Your task to perform on an android device: Do I have any events tomorrow? Image 0: 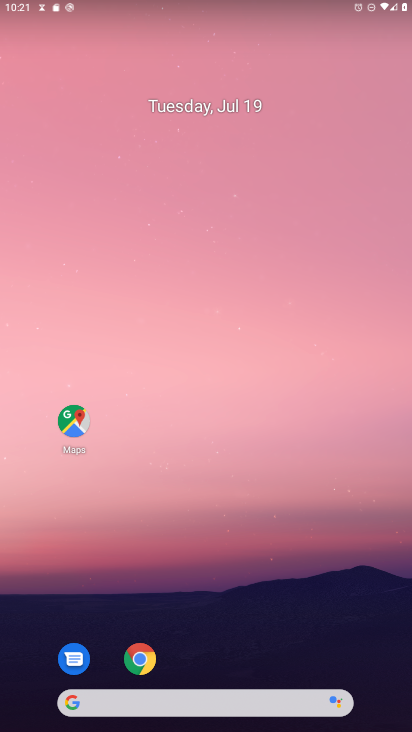
Step 0: drag from (203, 603) to (230, 152)
Your task to perform on an android device: Do I have any events tomorrow? Image 1: 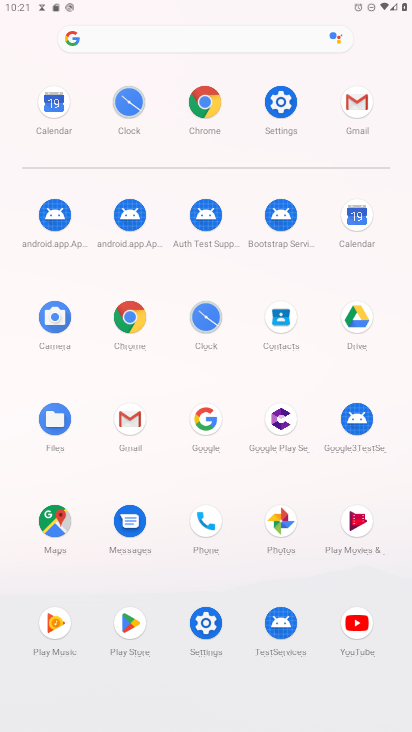
Step 1: click (345, 212)
Your task to perform on an android device: Do I have any events tomorrow? Image 2: 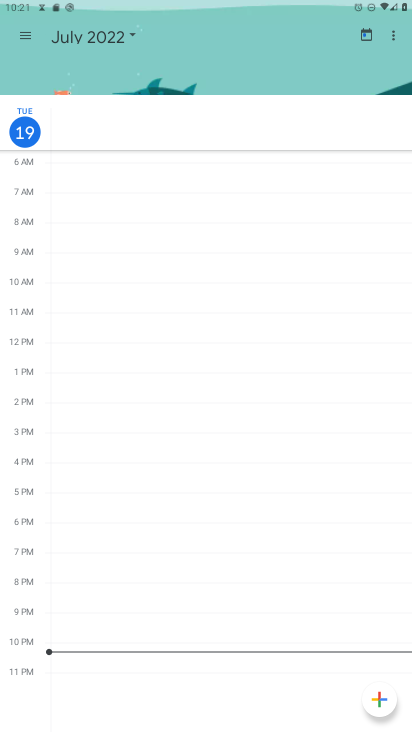
Step 2: click (31, 34)
Your task to perform on an android device: Do I have any events tomorrow? Image 3: 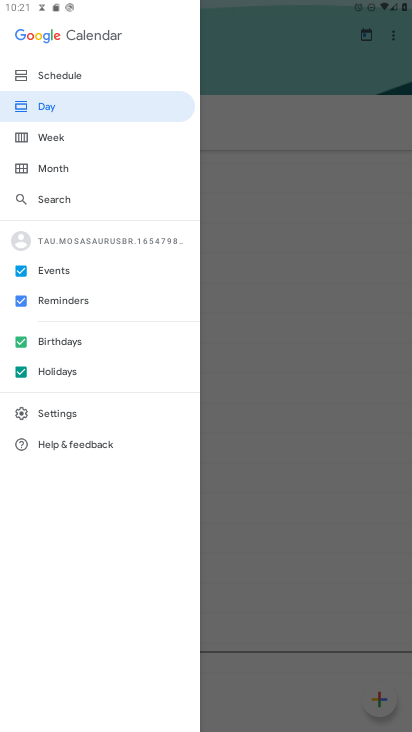
Step 3: click (47, 102)
Your task to perform on an android device: Do I have any events tomorrow? Image 4: 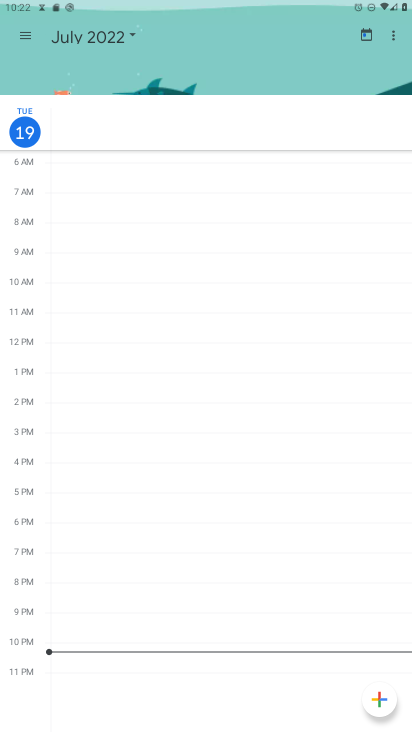
Step 4: click (33, 26)
Your task to perform on an android device: Do I have any events tomorrow? Image 5: 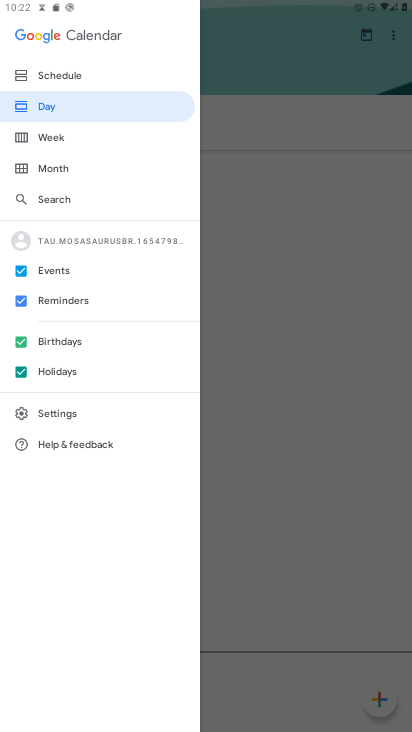
Step 5: click (55, 168)
Your task to perform on an android device: Do I have any events tomorrow? Image 6: 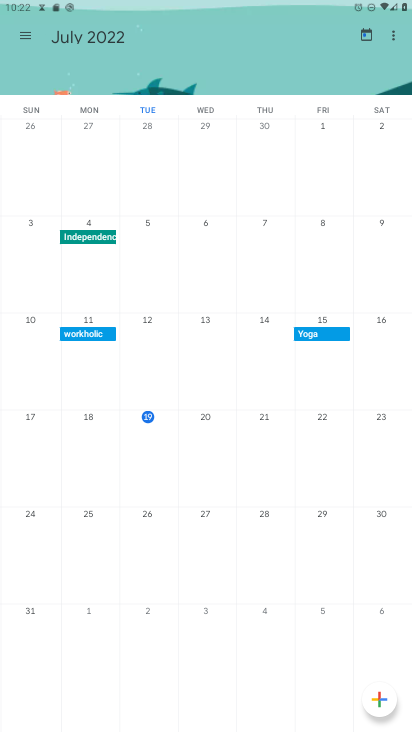
Step 6: click (255, 440)
Your task to perform on an android device: Do I have any events tomorrow? Image 7: 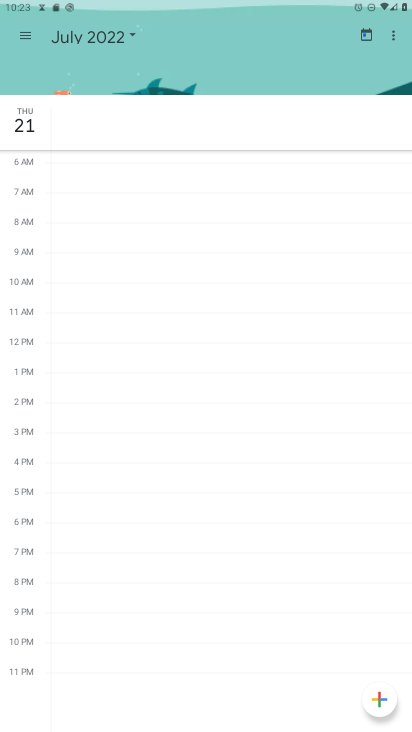
Step 7: task complete